Your task to perform on an android device: empty trash in google photos Image 0: 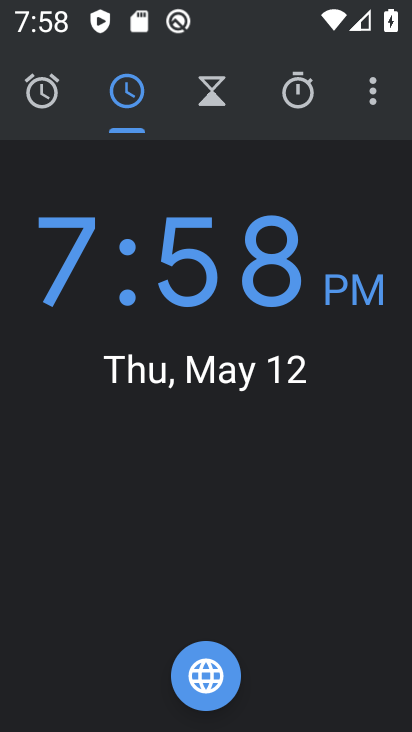
Step 0: press home button
Your task to perform on an android device: empty trash in google photos Image 1: 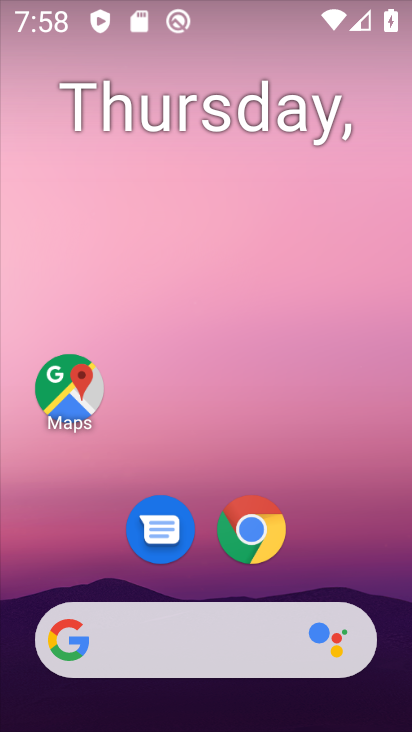
Step 1: drag from (203, 576) to (187, 56)
Your task to perform on an android device: empty trash in google photos Image 2: 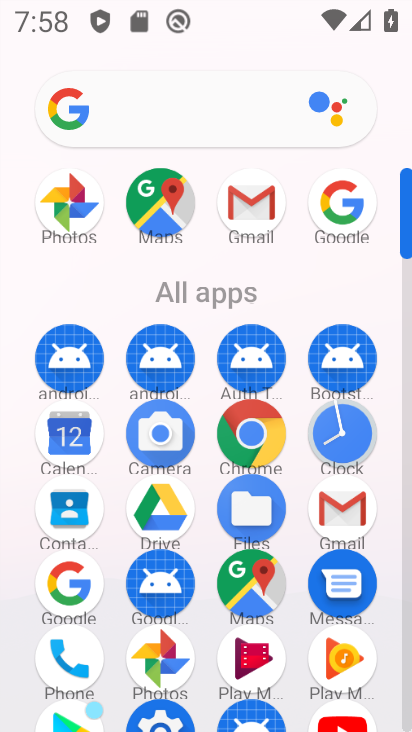
Step 2: click (161, 655)
Your task to perform on an android device: empty trash in google photos Image 3: 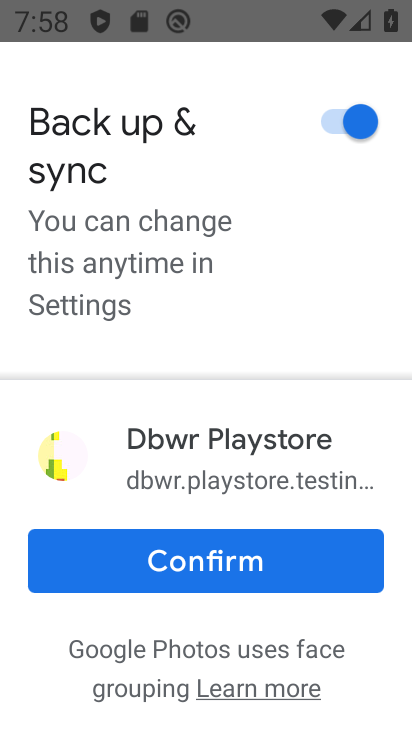
Step 3: click (145, 566)
Your task to perform on an android device: empty trash in google photos Image 4: 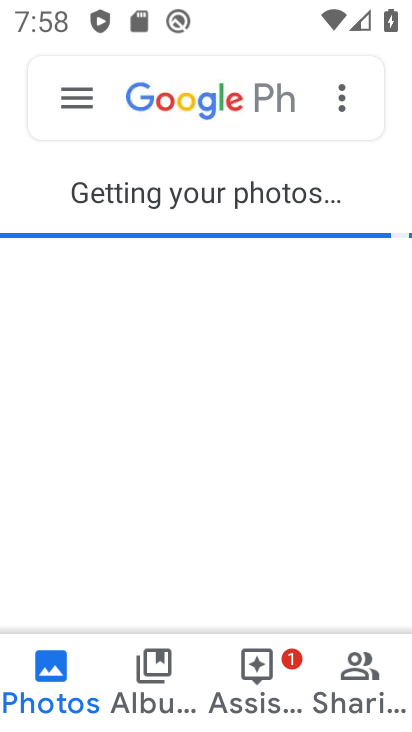
Step 4: click (69, 99)
Your task to perform on an android device: empty trash in google photos Image 5: 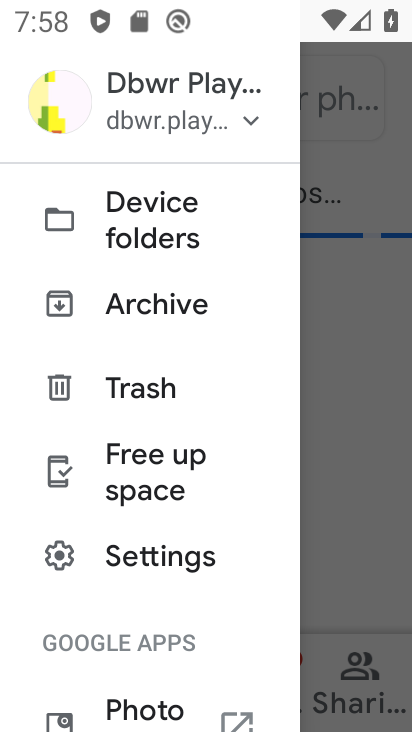
Step 5: click (129, 382)
Your task to perform on an android device: empty trash in google photos Image 6: 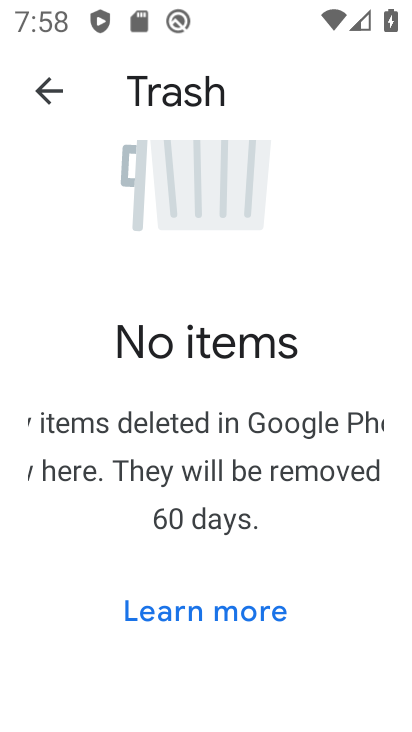
Step 6: task complete